Your task to perform on an android device: Open Google Chrome and open the bookmarks view Image 0: 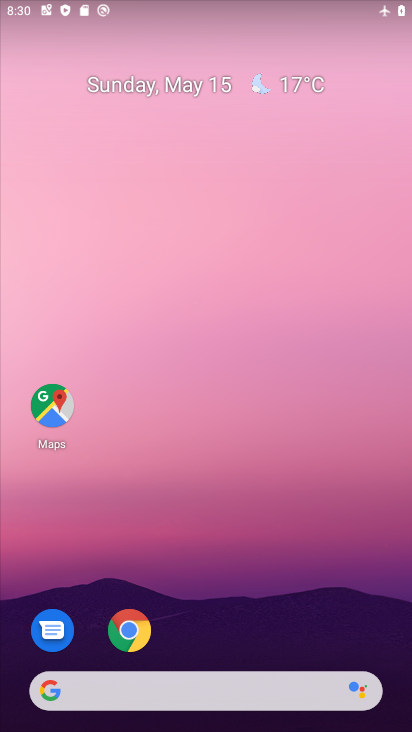
Step 0: drag from (331, 578) to (287, 156)
Your task to perform on an android device: Open Google Chrome and open the bookmarks view Image 1: 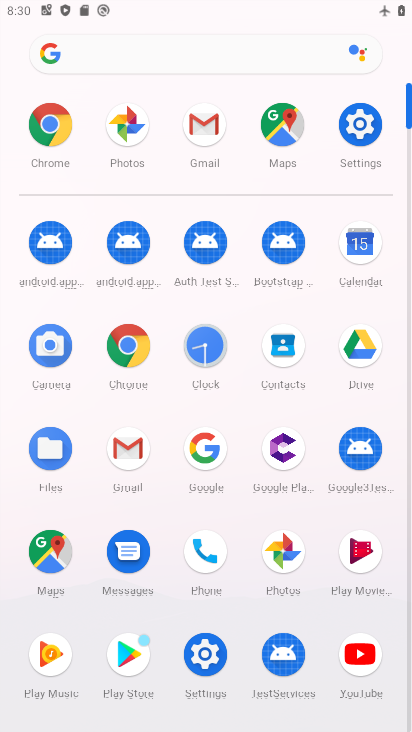
Step 1: click (51, 129)
Your task to perform on an android device: Open Google Chrome and open the bookmarks view Image 2: 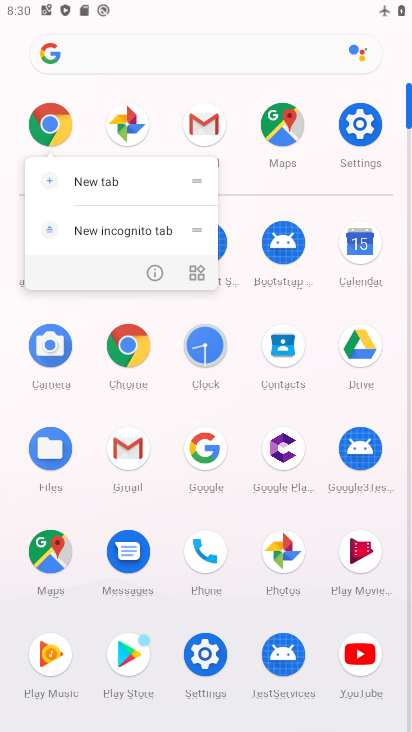
Step 2: click (54, 130)
Your task to perform on an android device: Open Google Chrome and open the bookmarks view Image 3: 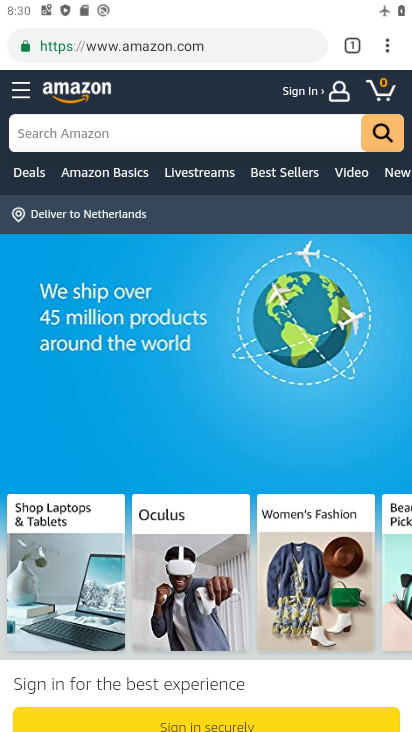
Step 3: task complete